Your task to perform on an android device: What's on my calendar today? Image 0: 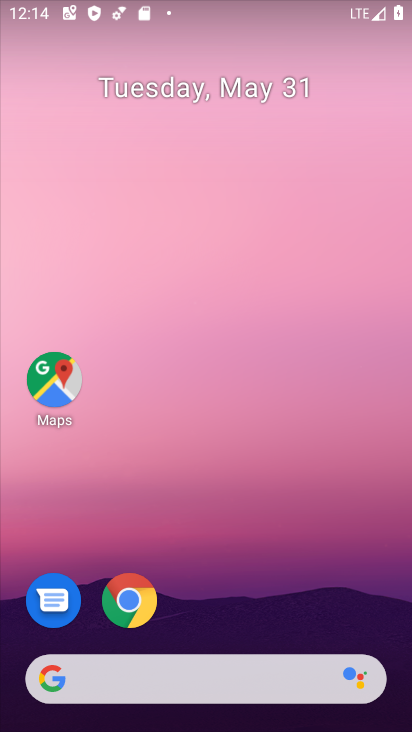
Step 0: drag from (214, 728) to (217, 58)
Your task to perform on an android device: What's on my calendar today? Image 1: 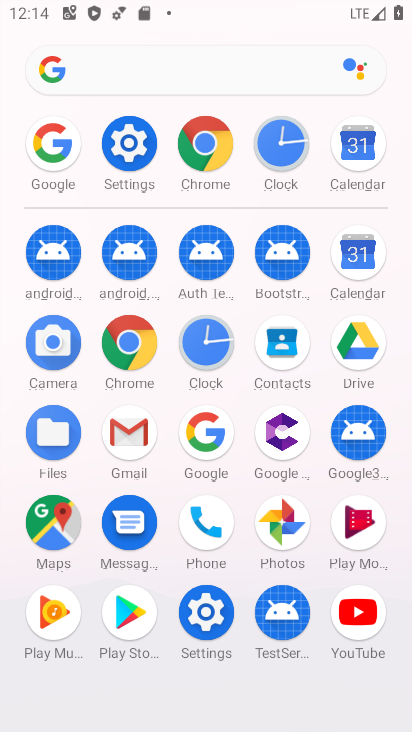
Step 1: click (353, 271)
Your task to perform on an android device: What's on my calendar today? Image 2: 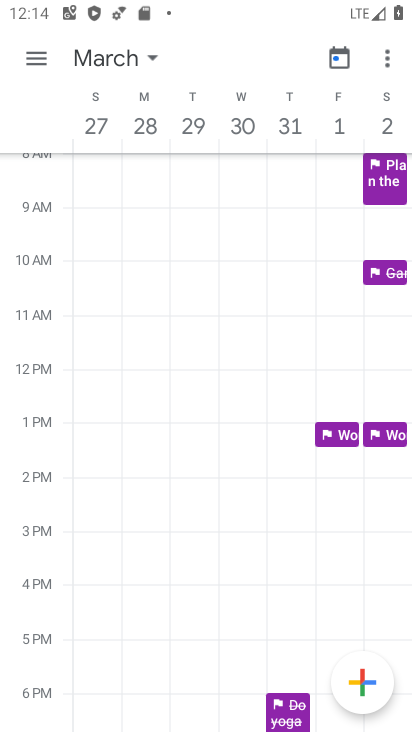
Step 2: click (155, 55)
Your task to perform on an android device: What's on my calendar today? Image 3: 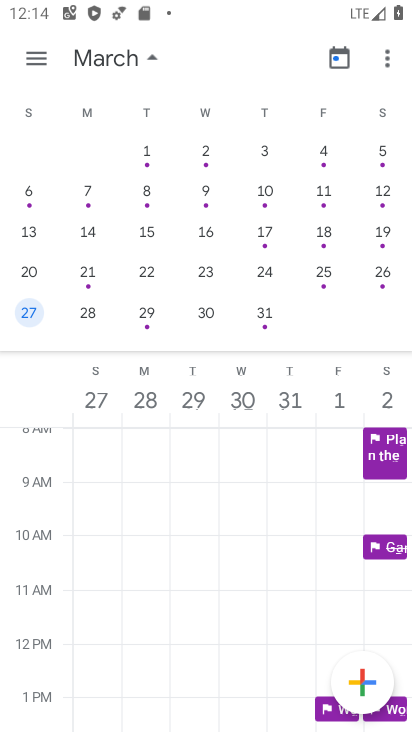
Step 3: drag from (357, 252) to (4, 250)
Your task to perform on an android device: What's on my calendar today? Image 4: 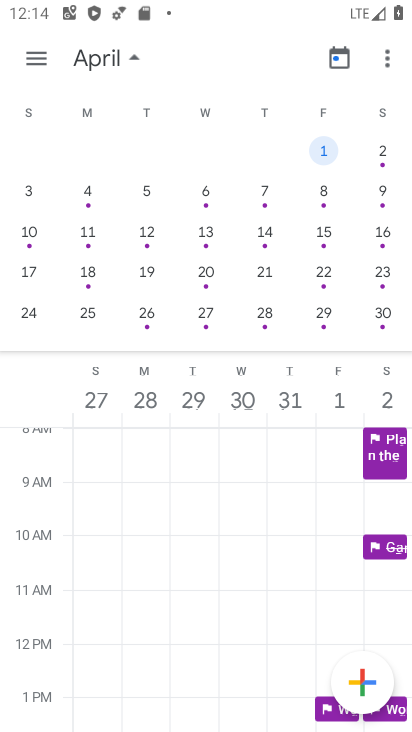
Step 4: drag from (363, 235) to (2, 236)
Your task to perform on an android device: What's on my calendar today? Image 5: 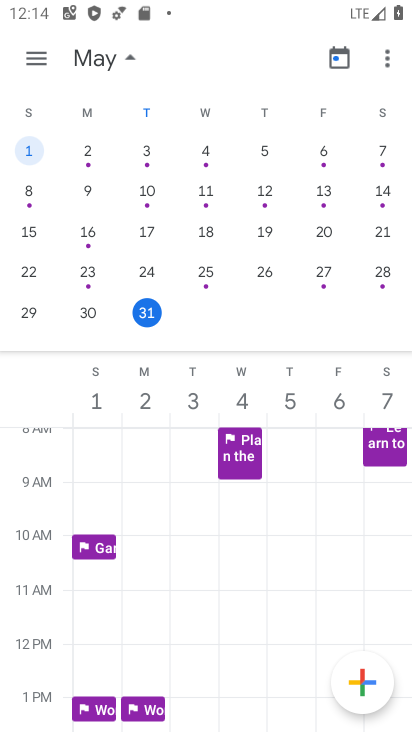
Step 5: click (149, 308)
Your task to perform on an android device: What's on my calendar today? Image 6: 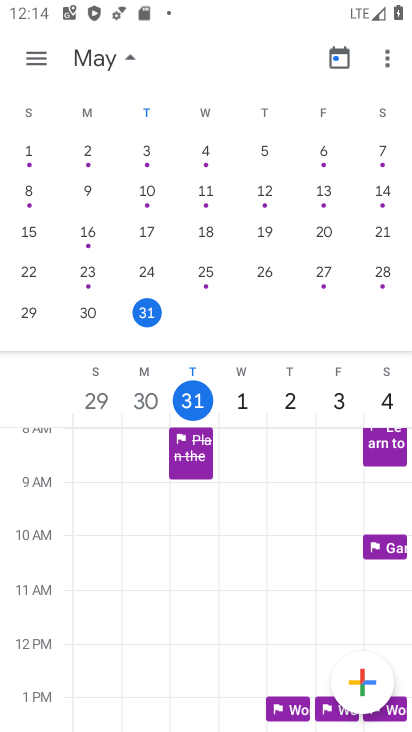
Step 6: click (128, 58)
Your task to perform on an android device: What's on my calendar today? Image 7: 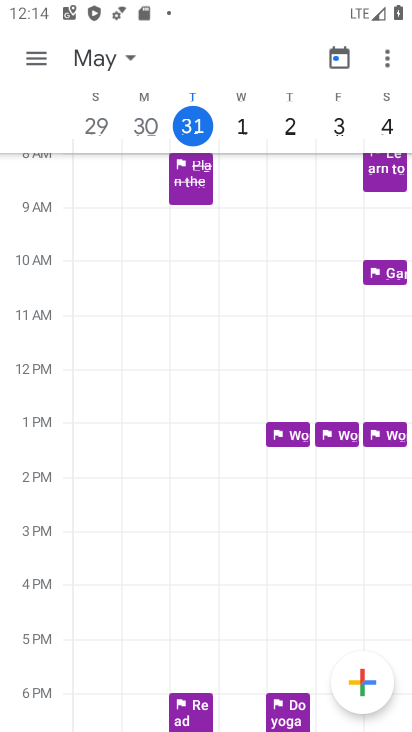
Step 7: task complete